Your task to perform on an android device: Do I have any events this weekend? Image 0: 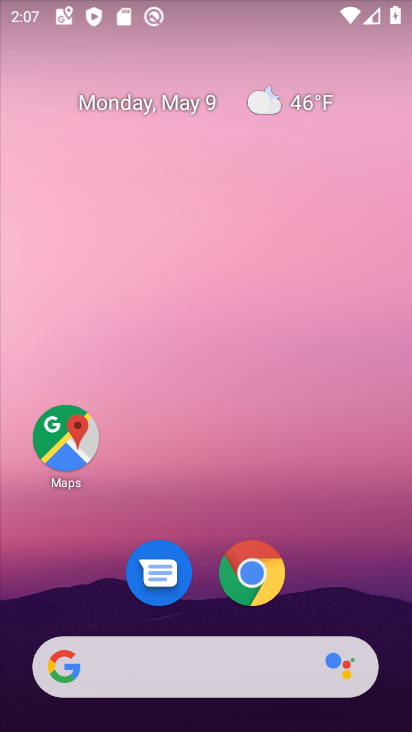
Step 0: drag from (204, 586) to (214, 256)
Your task to perform on an android device: Do I have any events this weekend? Image 1: 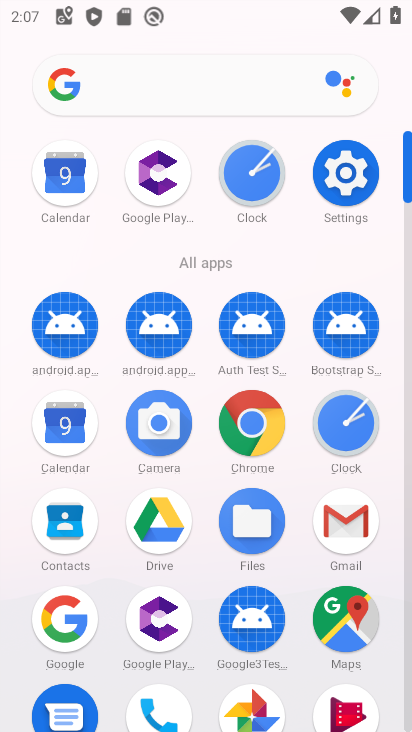
Step 1: click (65, 431)
Your task to perform on an android device: Do I have any events this weekend? Image 2: 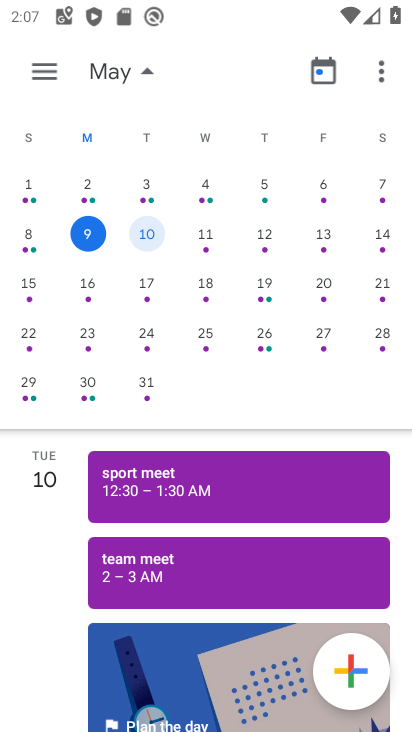
Step 2: click (207, 237)
Your task to perform on an android device: Do I have any events this weekend? Image 3: 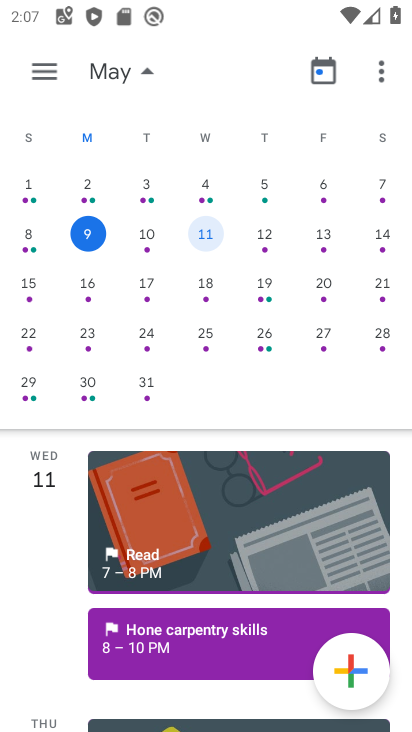
Step 3: task complete